Your task to perform on an android device: search for starred emails in the gmail app Image 0: 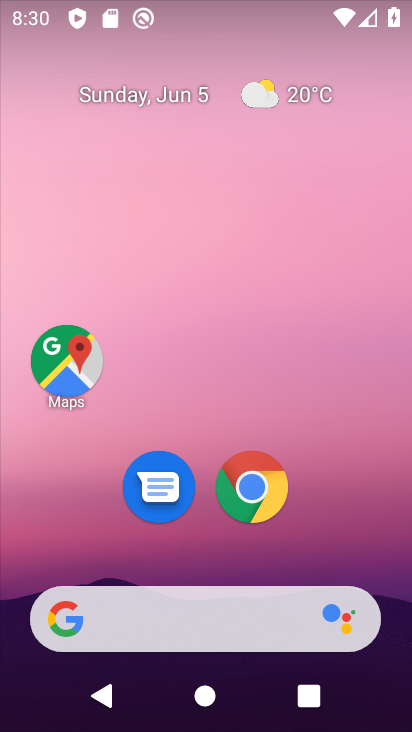
Step 0: drag from (256, 526) to (261, 289)
Your task to perform on an android device: search for starred emails in the gmail app Image 1: 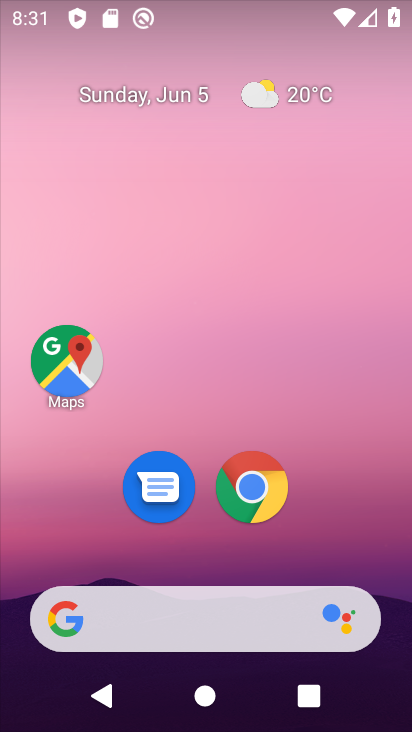
Step 1: drag from (210, 497) to (210, 377)
Your task to perform on an android device: search for starred emails in the gmail app Image 2: 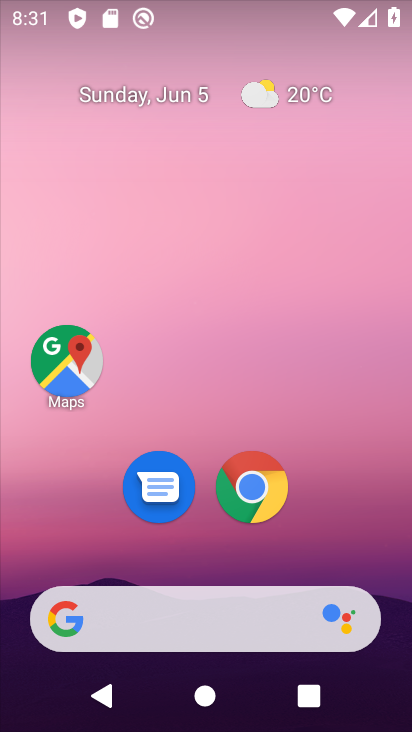
Step 2: drag from (228, 637) to (267, 287)
Your task to perform on an android device: search for starred emails in the gmail app Image 3: 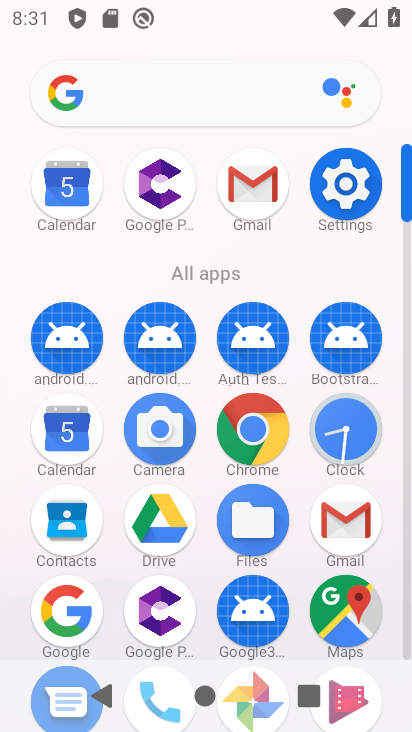
Step 3: click (353, 532)
Your task to perform on an android device: search for starred emails in the gmail app Image 4: 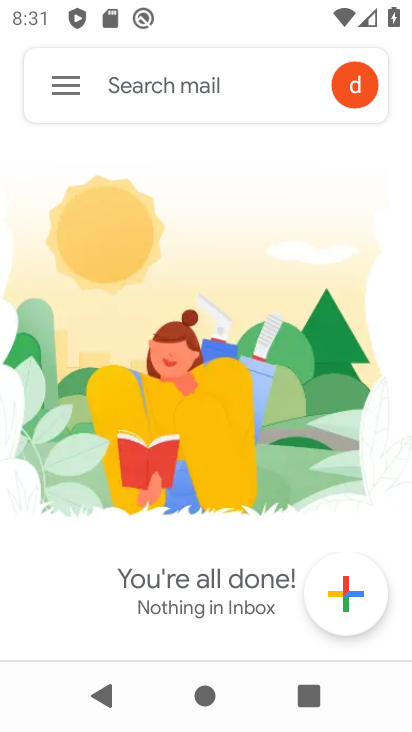
Step 4: click (71, 98)
Your task to perform on an android device: search for starred emails in the gmail app Image 5: 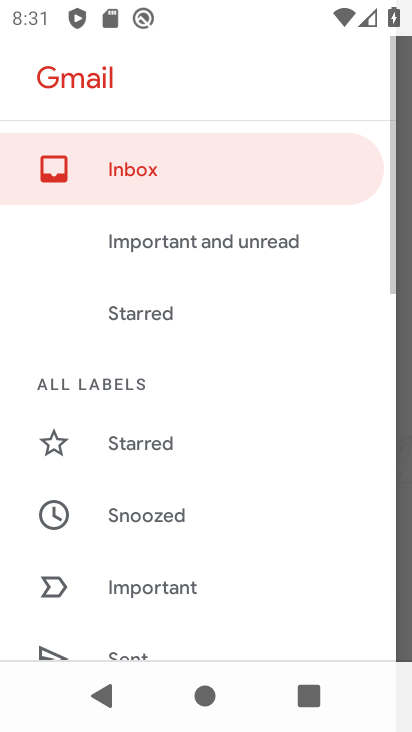
Step 5: click (187, 441)
Your task to perform on an android device: search for starred emails in the gmail app Image 6: 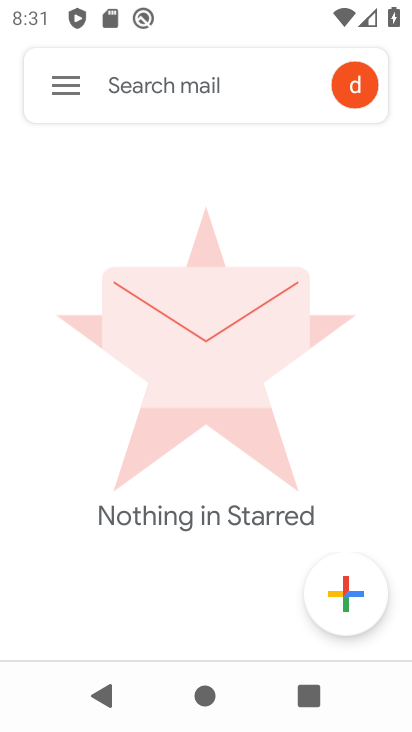
Step 6: task complete